Your task to perform on an android device: change the clock display to analog Image 0: 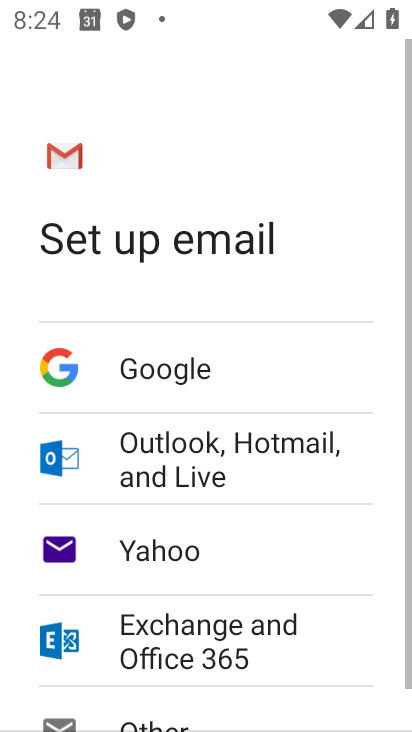
Step 0: press home button
Your task to perform on an android device: change the clock display to analog Image 1: 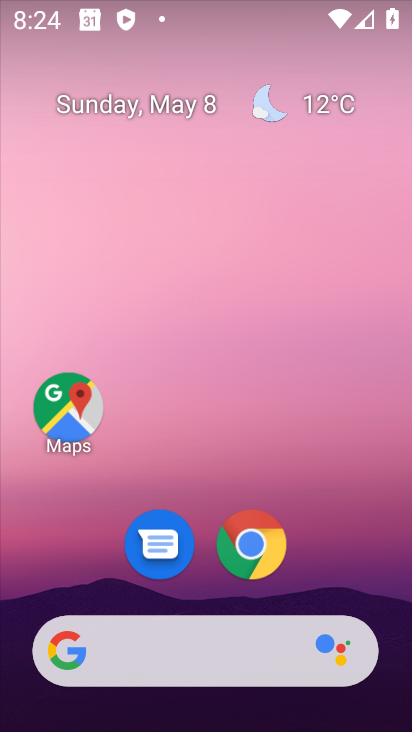
Step 1: drag from (354, 560) to (210, 91)
Your task to perform on an android device: change the clock display to analog Image 2: 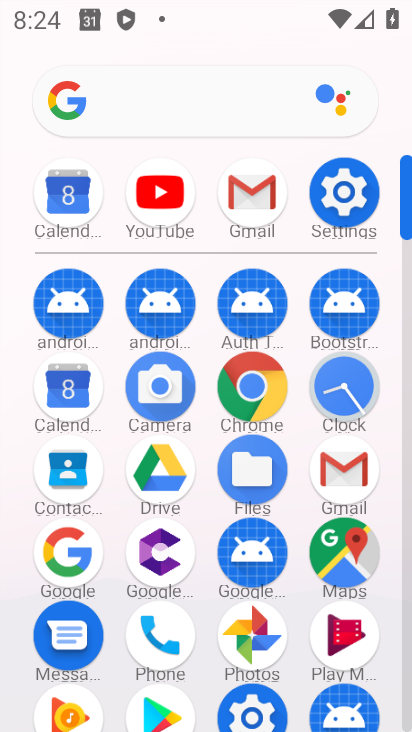
Step 2: click (346, 390)
Your task to perform on an android device: change the clock display to analog Image 3: 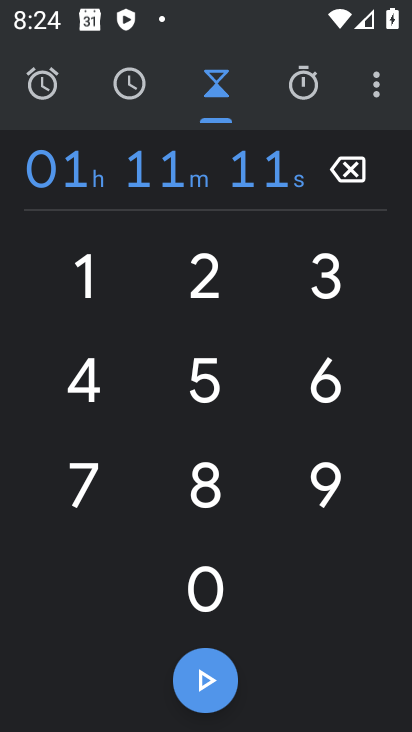
Step 3: click (378, 85)
Your task to perform on an android device: change the clock display to analog Image 4: 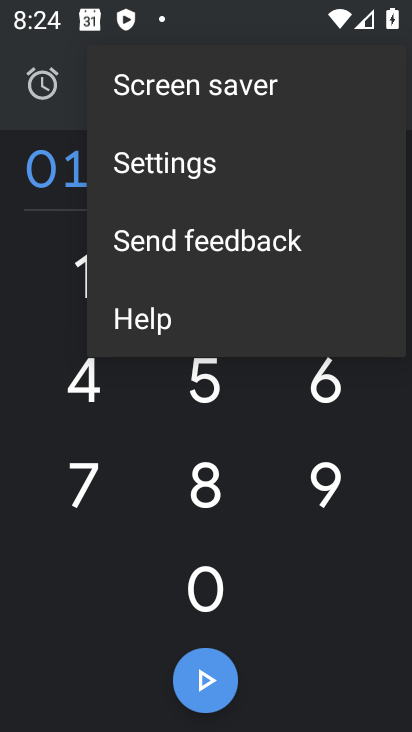
Step 4: click (188, 171)
Your task to perform on an android device: change the clock display to analog Image 5: 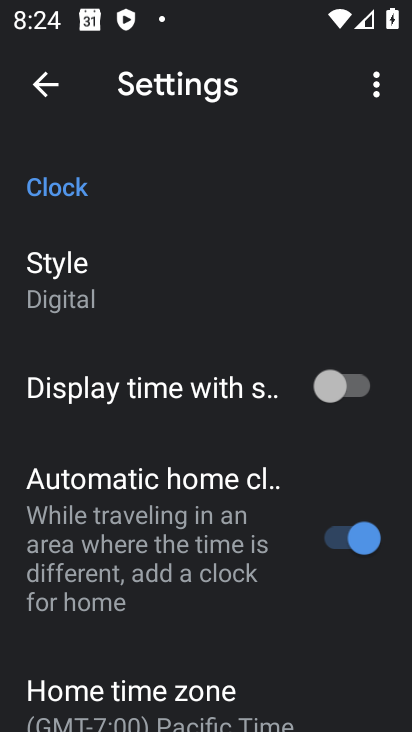
Step 5: click (51, 278)
Your task to perform on an android device: change the clock display to analog Image 6: 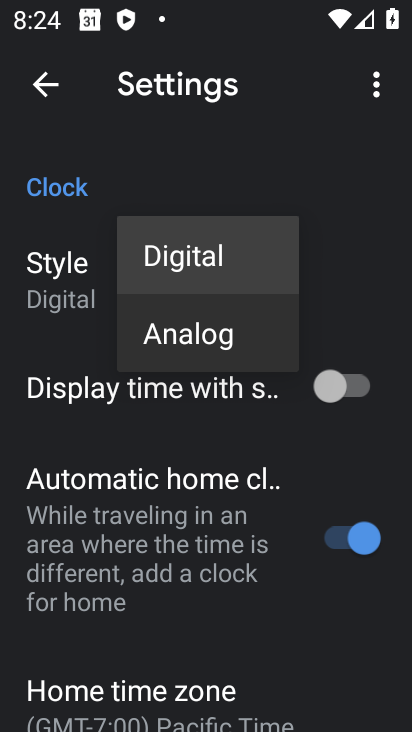
Step 6: click (167, 328)
Your task to perform on an android device: change the clock display to analog Image 7: 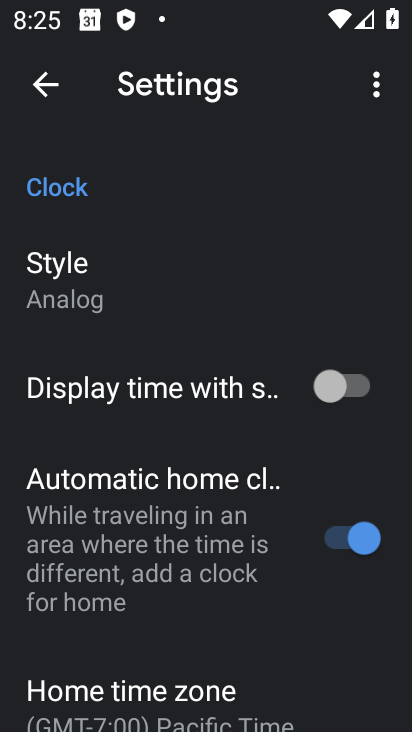
Step 7: task complete